Your task to perform on an android device: find snoozed emails in the gmail app Image 0: 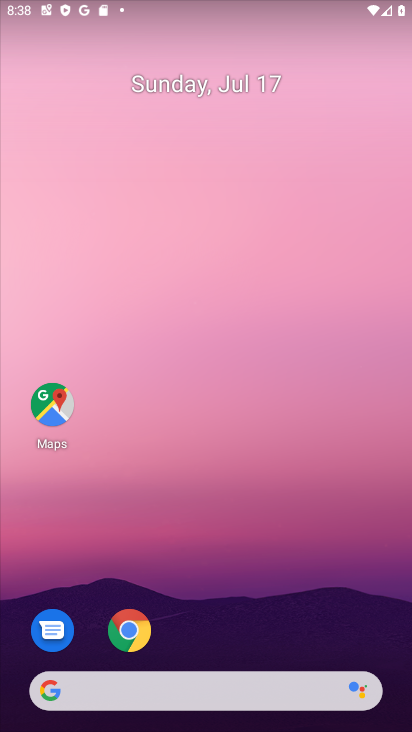
Step 0: drag from (187, 660) to (280, 79)
Your task to perform on an android device: find snoozed emails in the gmail app Image 1: 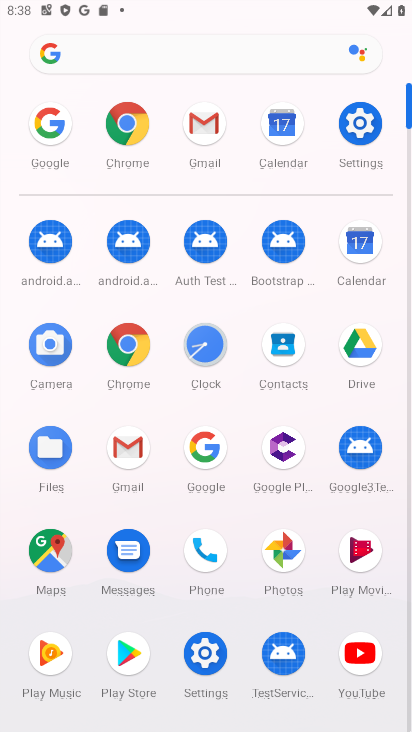
Step 1: click (205, 148)
Your task to perform on an android device: find snoozed emails in the gmail app Image 2: 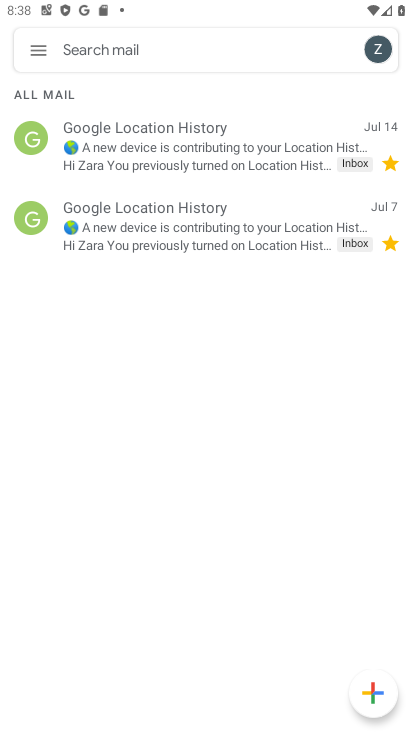
Step 2: click (37, 44)
Your task to perform on an android device: find snoozed emails in the gmail app Image 3: 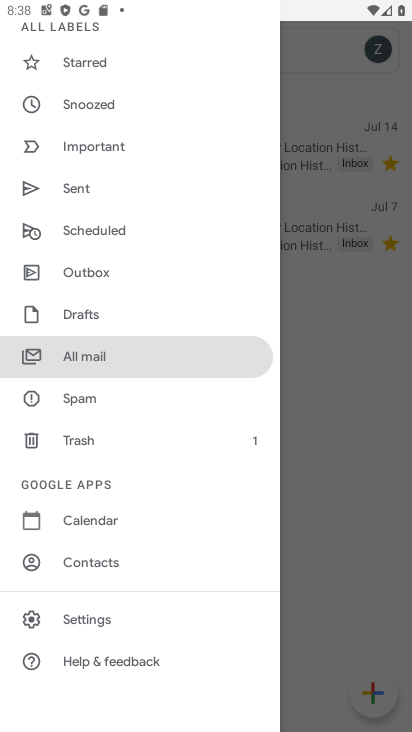
Step 3: click (77, 112)
Your task to perform on an android device: find snoozed emails in the gmail app Image 4: 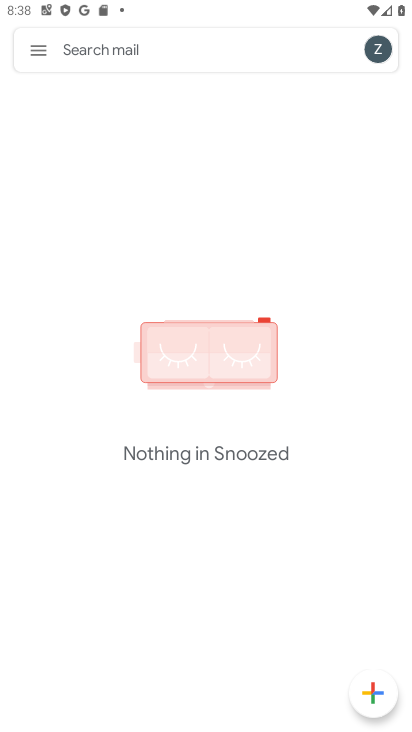
Step 4: task complete